Your task to perform on an android device: find snoozed emails in the gmail app Image 0: 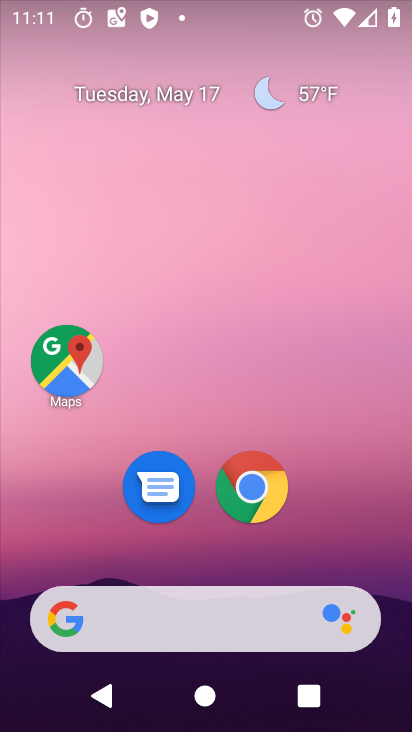
Step 0: drag from (228, 721) to (236, 116)
Your task to perform on an android device: find snoozed emails in the gmail app Image 1: 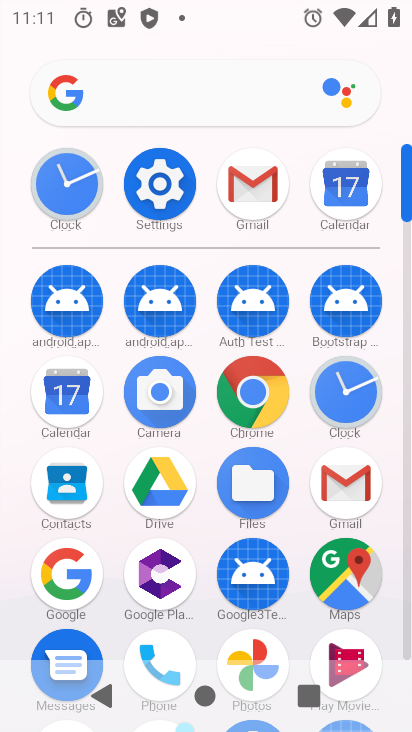
Step 1: click (350, 480)
Your task to perform on an android device: find snoozed emails in the gmail app Image 2: 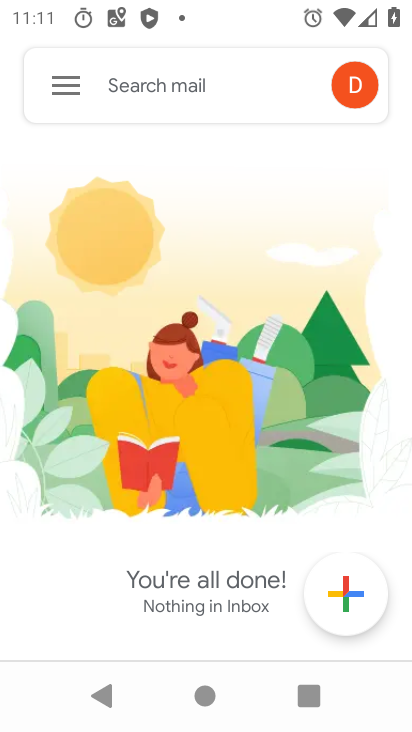
Step 2: click (66, 83)
Your task to perform on an android device: find snoozed emails in the gmail app Image 3: 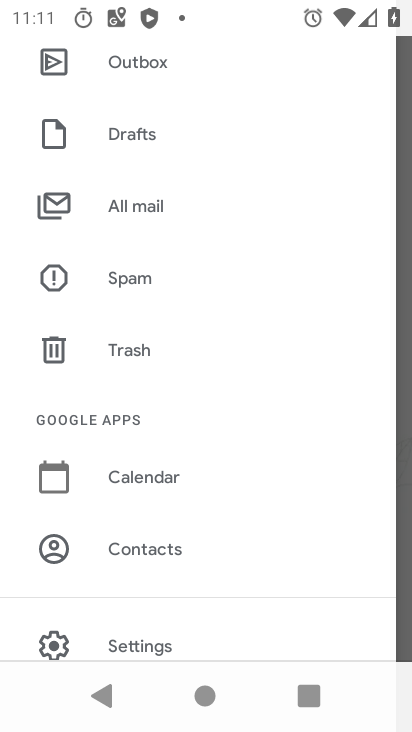
Step 3: drag from (204, 140) to (217, 531)
Your task to perform on an android device: find snoozed emails in the gmail app Image 4: 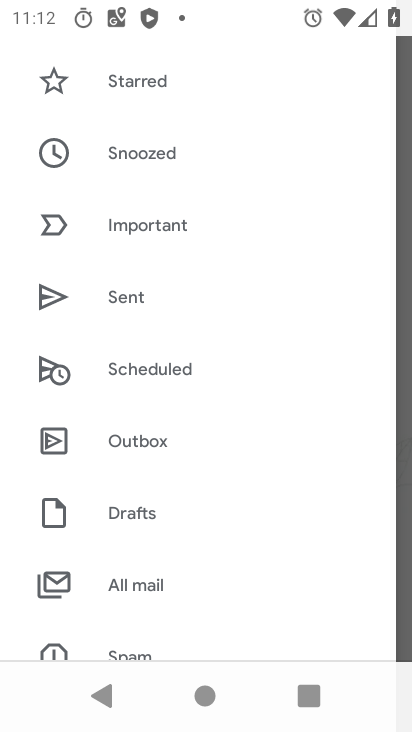
Step 4: click (142, 148)
Your task to perform on an android device: find snoozed emails in the gmail app Image 5: 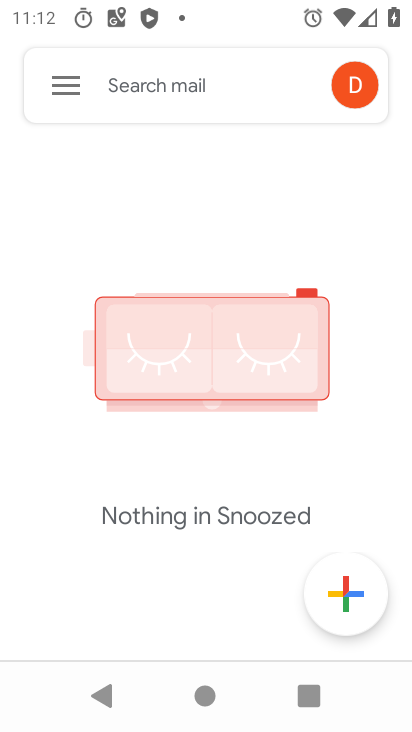
Step 5: task complete